Your task to perform on an android device: open device folders in google photos Image 0: 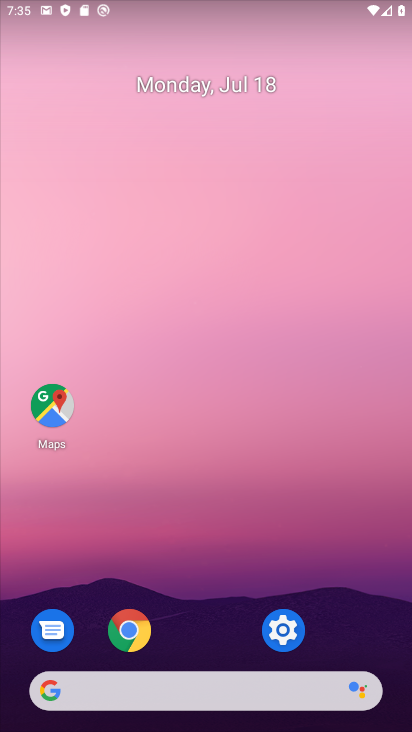
Step 0: drag from (279, 680) to (270, 302)
Your task to perform on an android device: open device folders in google photos Image 1: 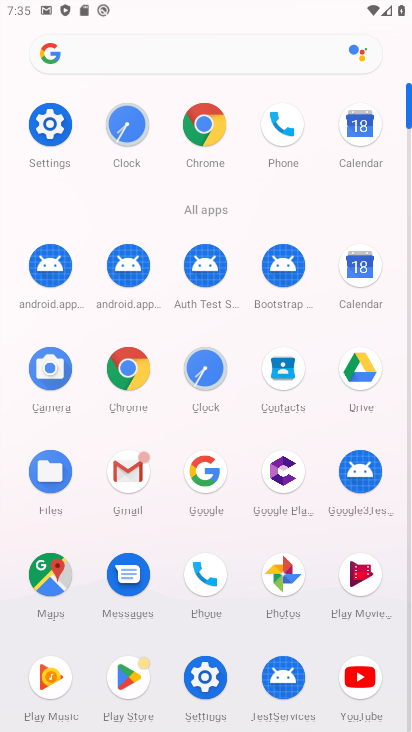
Step 1: click (288, 562)
Your task to perform on an android device: open device folders in google photos Image 2: 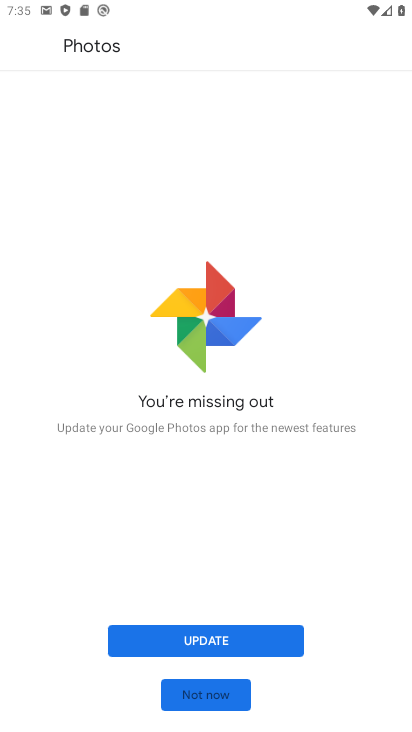
Step 2: click (235, 633)
Your task to perform on an android device: open device folders in google photos Image 3: 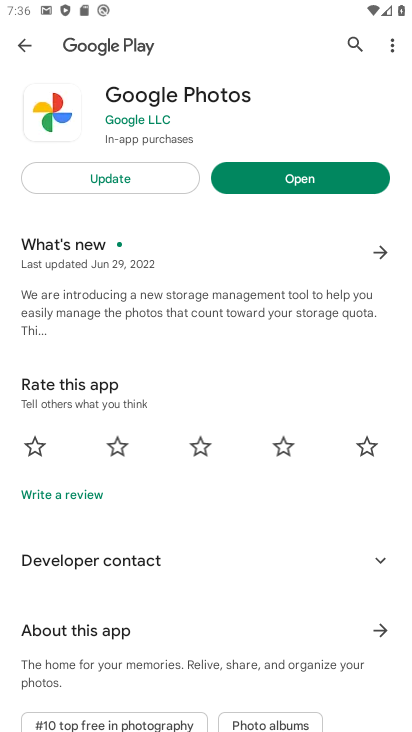
Step 3: click (299, 173)
Your task to perform on an android device: open device folders in google photos Image 4: 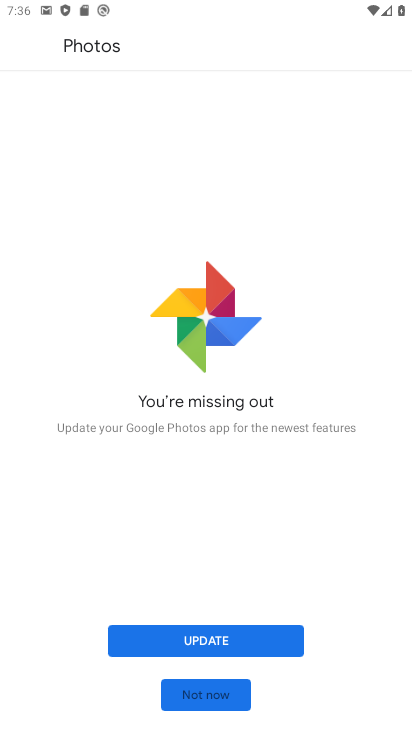
Step 4: click (235, 652)
Your task to perform on an android device: open device folders in google photos Image 5: 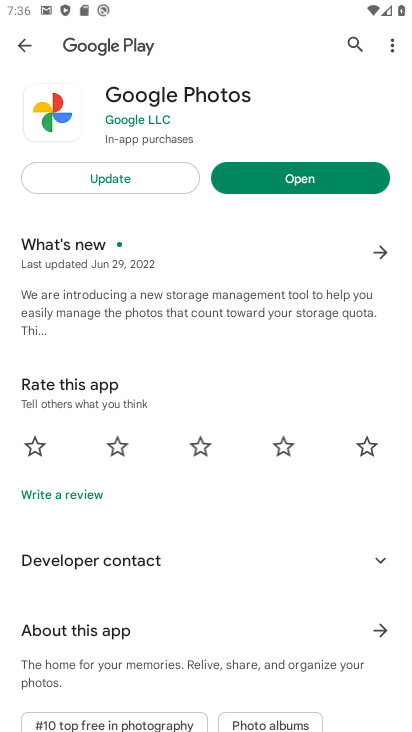
Step 5: click (111, 184)
Your task to perform on an android device: open device folders in google photos Image 6: 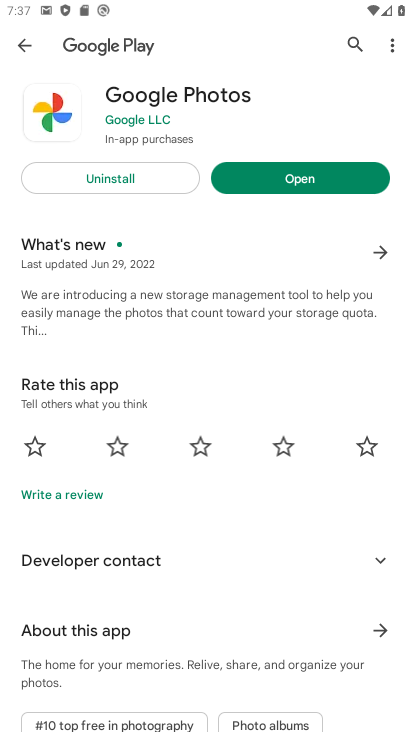
Step 6: click (275, 180)
Your task to perform on an android device: open device folders in google photos Image 7: 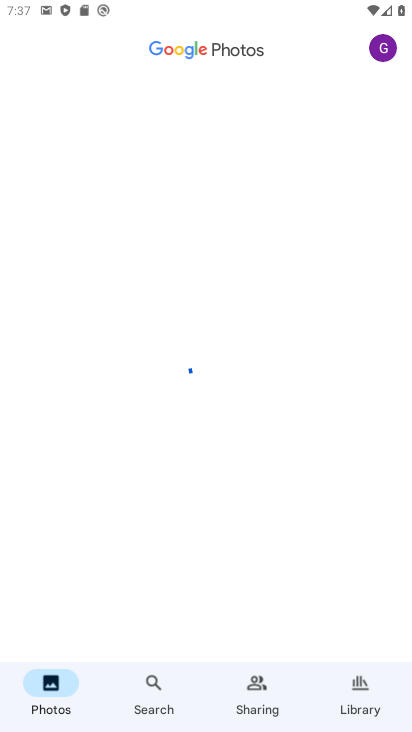
Step 7: click (152, 680)
Your task to perform on an android device: open device folders in google photos Image 8: 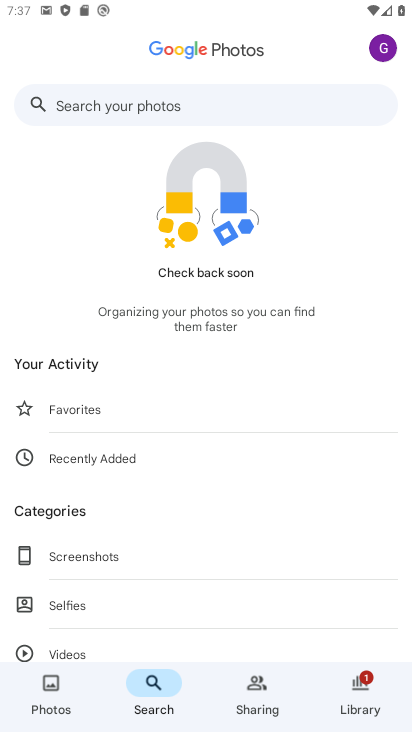
Step 8: click (87, 112)
Your task to perform on an android device: open device folders in google photos Image 9: 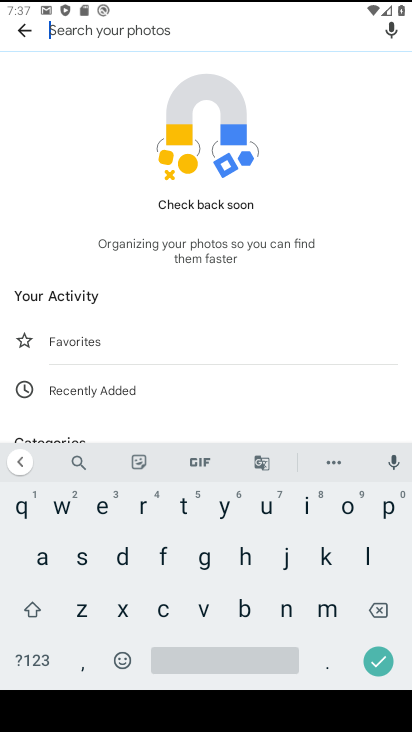
Step 9: click (117, 562)
Your task to perform on an android device: open device folders in google photos Image 10: 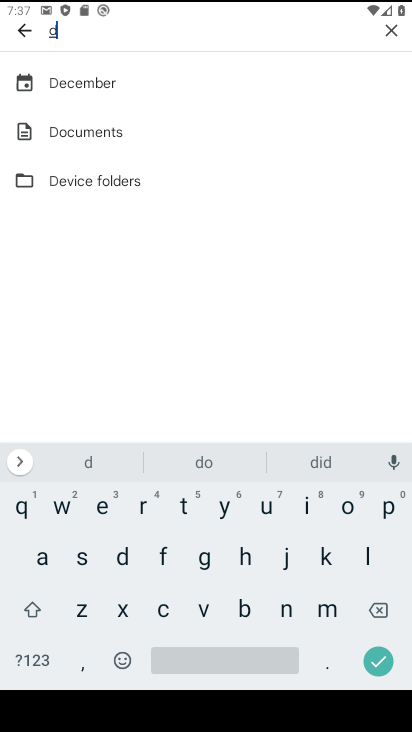
Step 10: click (96, 509)
Your task to perform on an android device: open device folders in google photos Image 11: 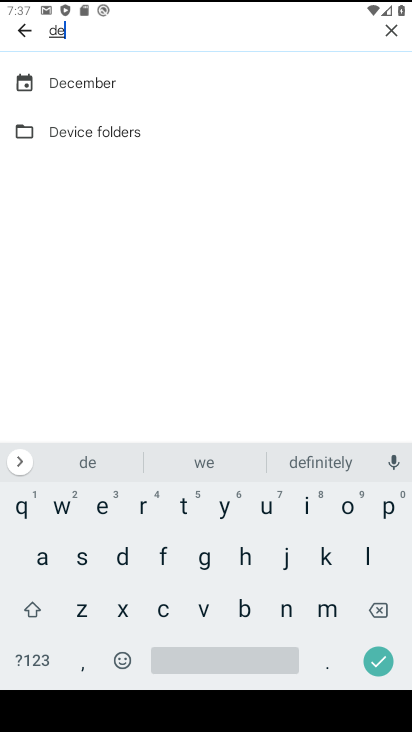
Step 11: click (99, 126)
Your task to perform on an android device: open device folders in google photos Image 12: 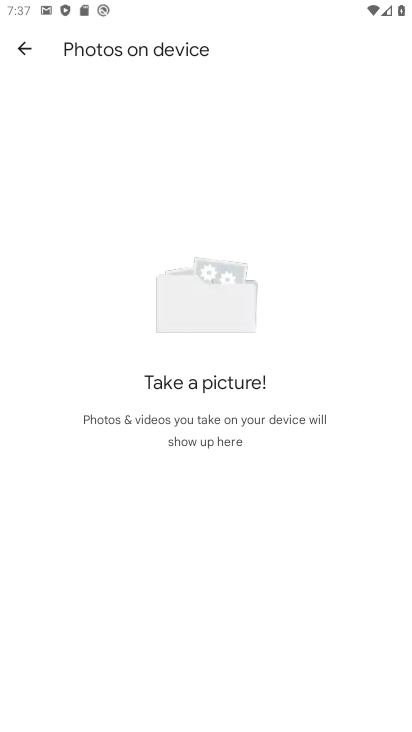
Step 12: task complete